Your task to perform on an android device: Open display settings Image 0: 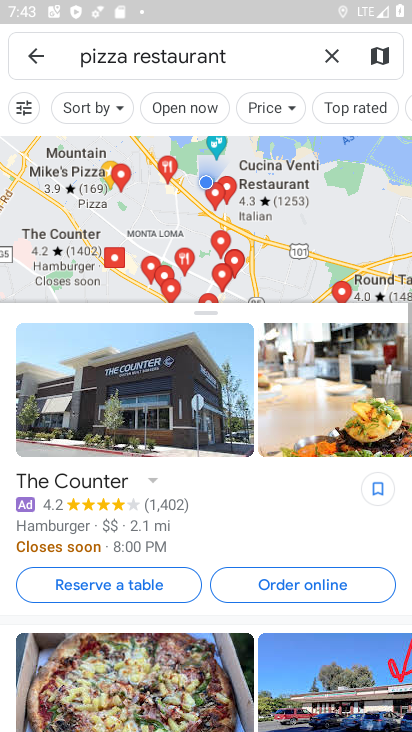
Step 0: press home button
Your task to perform on an android device: Open display settings Image 1: 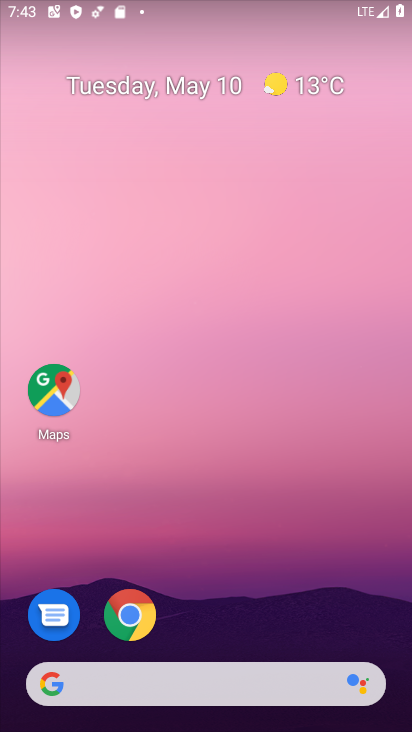
Step 1: drag from (304, 545) to (289, 81)
Your task to perform on an android device: Open display settings Image 2: 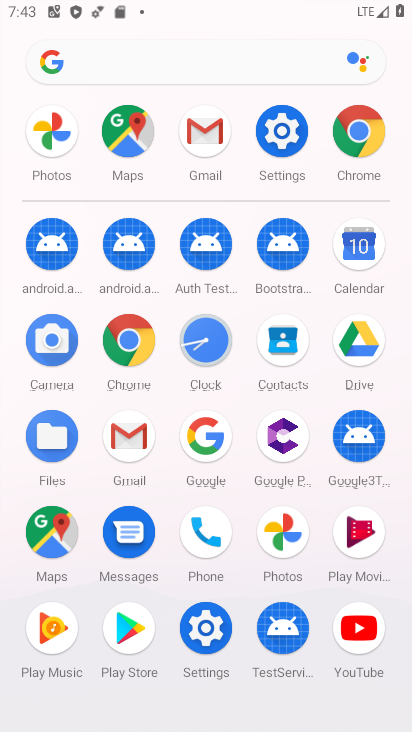
Step 2: click (275, 127)
Your task to perform on an android device: Open display settings Image 3: 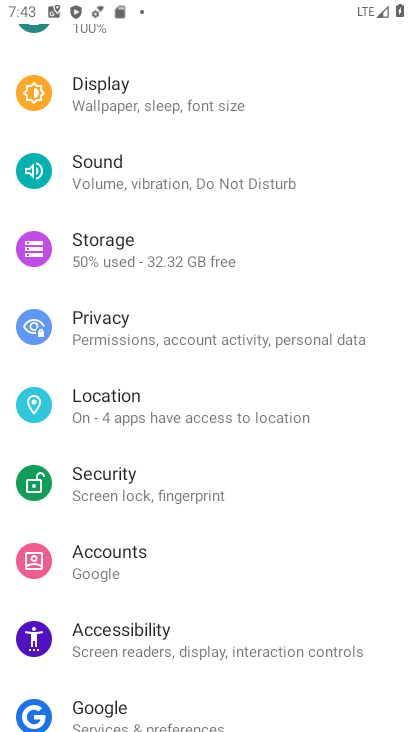
Step 3: click (93, 98)
Your task to perform on an android device: Open display settings Image 4: 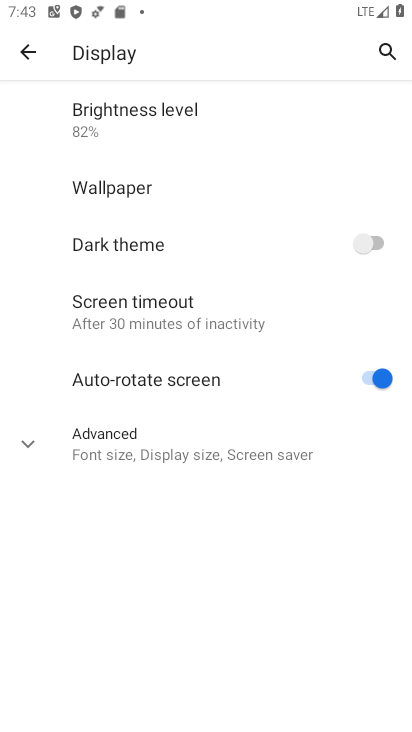
Step 4: task complete